Your task to perform on an android device: turn off priority inbox in the gmail app Image 0: 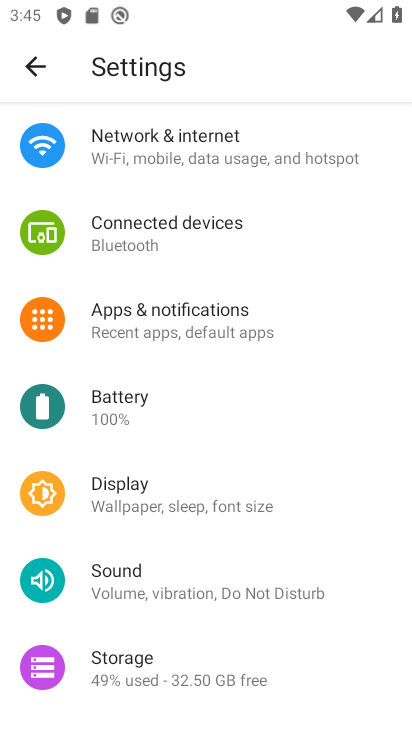
Step 0: press home button
Your task to perform on an android device: turn off priority inbox in the gmail app Image 1: 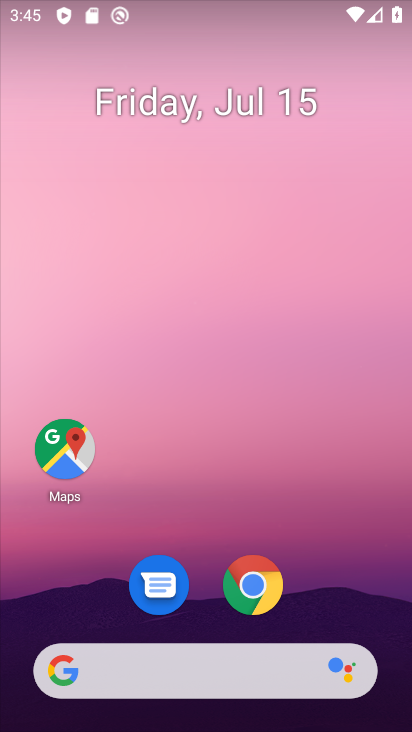
Step 1: drag from (198, 510) to (261, 50)
Your task to perform on an android device: turn off priority inbox in the gmail app Image 2: 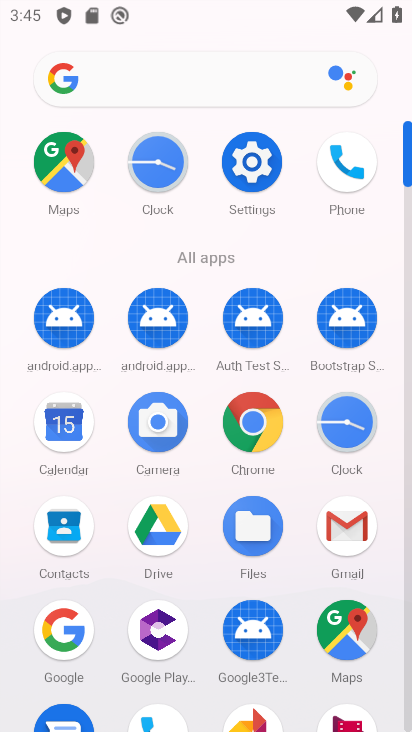
Step 2: click (347, 518)
Your task to perform on an android device: turn off priority inbox in the gmail app Image 3: 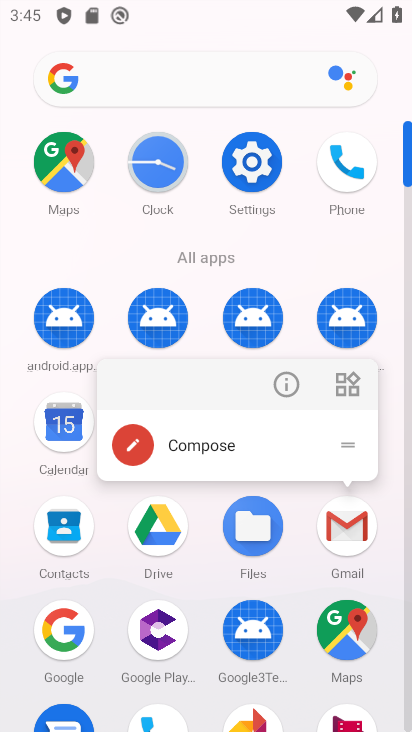
Step 3: click (347, 537)
Your task to perform on an android device: turn off priority inbox in the gmail app Image 4: 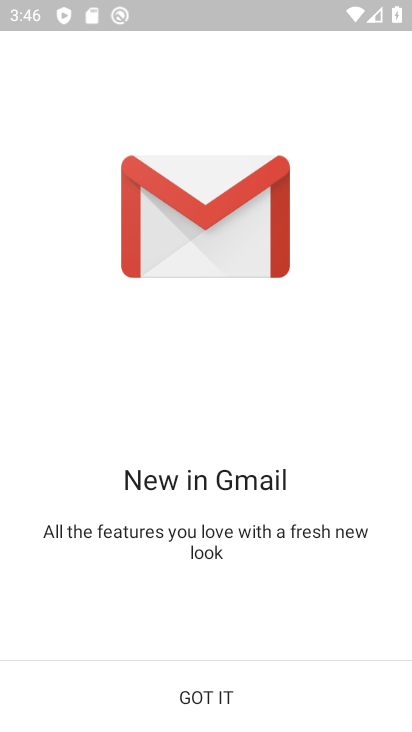
Step 4: click (229, 694)
Your task to perform on an android device: turn off priority inbox in the gmail app Image 5: 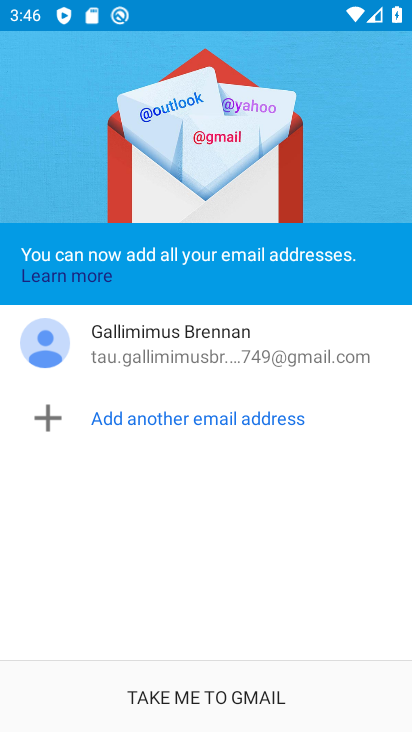
Step 5: click (229, 694)
Your task to perform on an android device: turn off priority inbox in the gmail app Image 6: 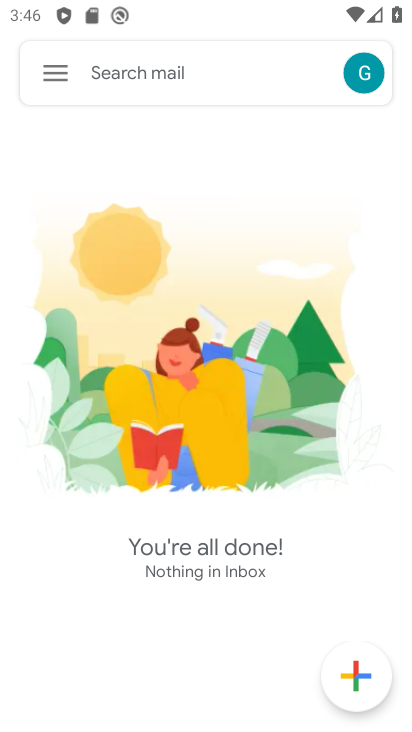
Step 6: click (56, 79)
Your task to perform on an android device: turn off priority inbox in the gmail app Image 7: 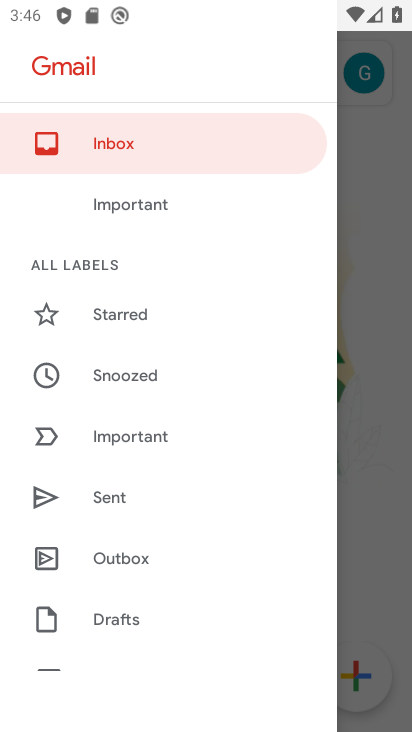
Step 7: drag from (193, 541) to (210, 64)
Your task to perform on an android device: turn off priority inbox in the gmail app Image 8: 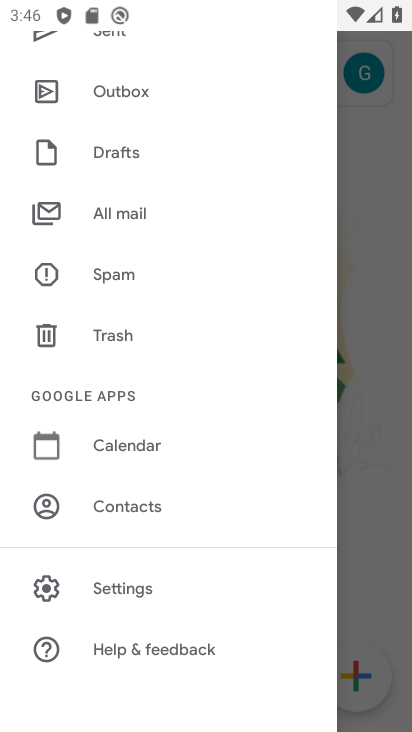
Step 8: click (139, 593)
Your task to perform on an android device: turn off priority inbox in the gmail app Image 9: 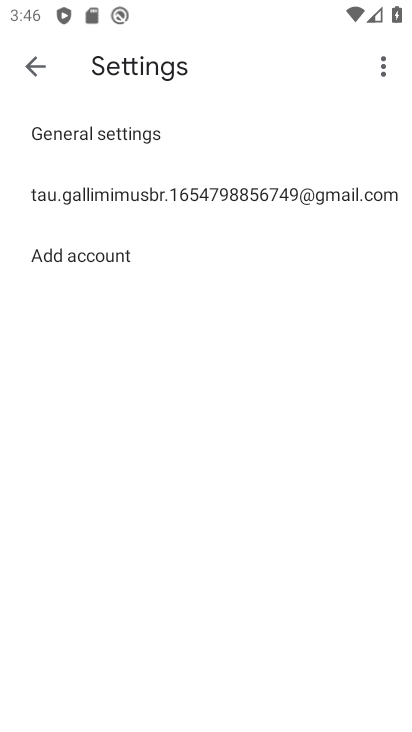
Step 9: click (241, 194)
Your task to perform on an android device: turn off priority inbox in the gmail app Image 10: 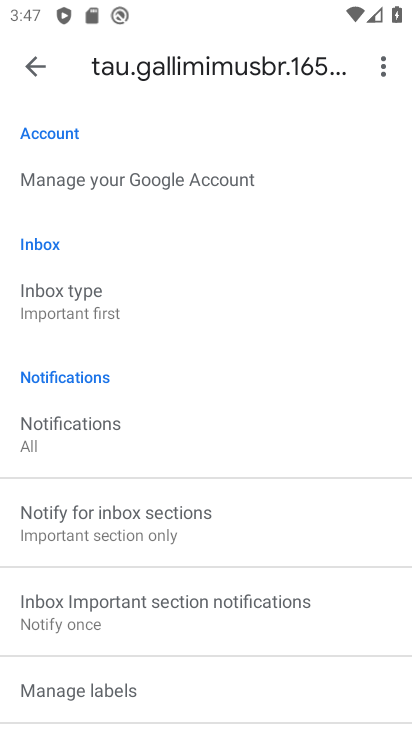
Step 10: click (94, 302)
Your task to perform on an android device: turn off priority inbox in the gmail app Image 11: 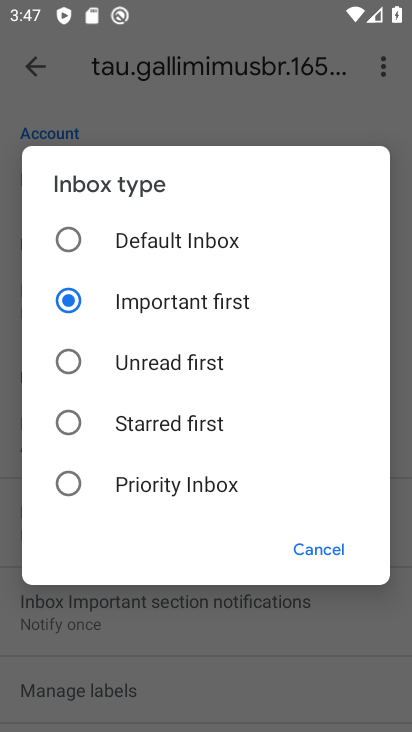
Step 11: click (71, 235)
Your task to perform on an android device: turn off priority inbox in the gmail app Image 12: 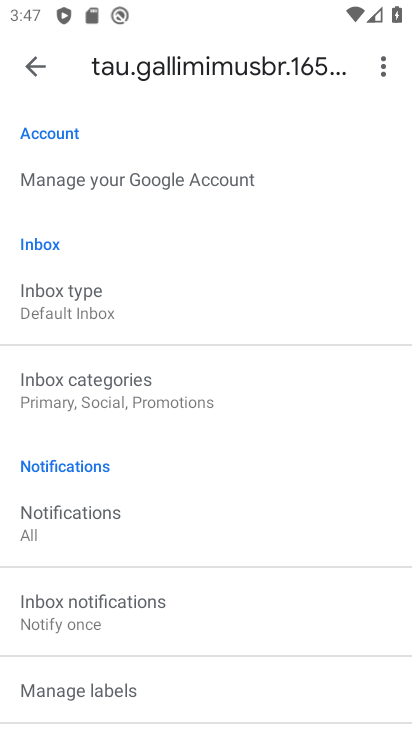
Step 12: task complete